Your task to perform on an android device: turn off translation in the chrome app Image 0: 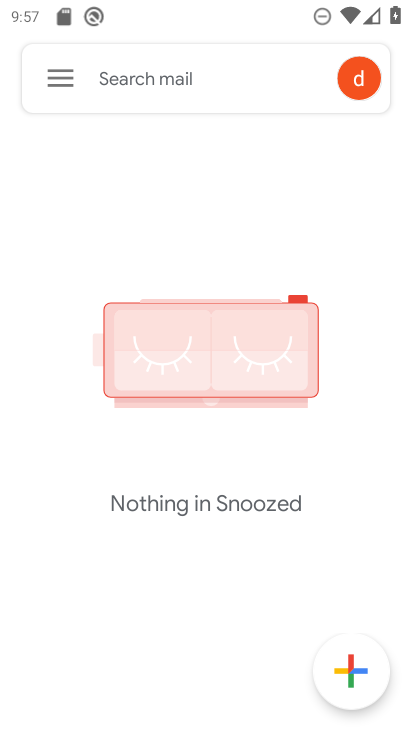
Step 0: press home button
Your task to perform on an android device: turn off translation in the chrome app Image 1: 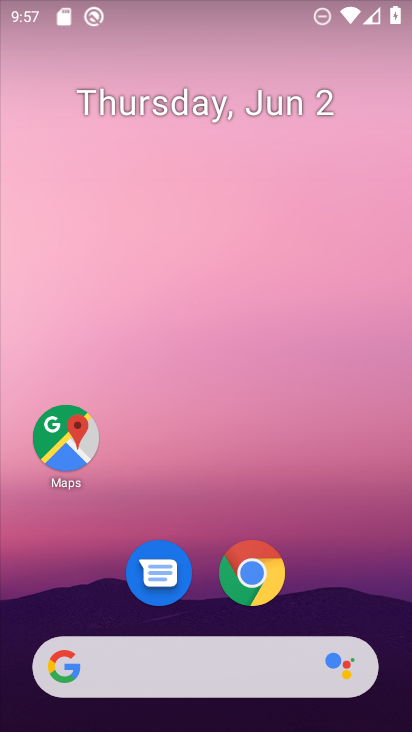
Step 1: click (254, 576)
Your task to perform on an android device: turn off translation in the chrome app Image 2: 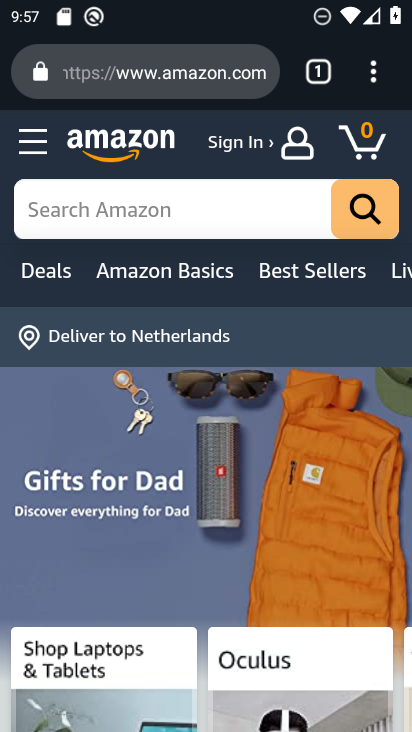
Step 2: drag from (369, 77) to (286, 218)
Your task to perform on an android device: turn off translation in the chrome app Image 3: 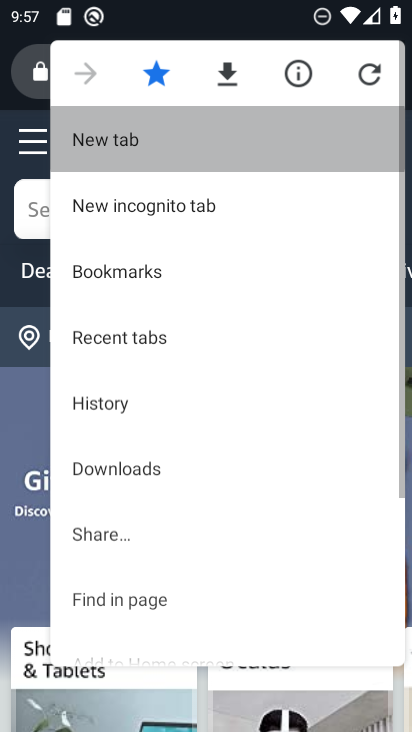
Step 3: drag from (218, 341) to (190, 387)
Your task to perform on an android device: turn off translation in the chrome app Image 4: 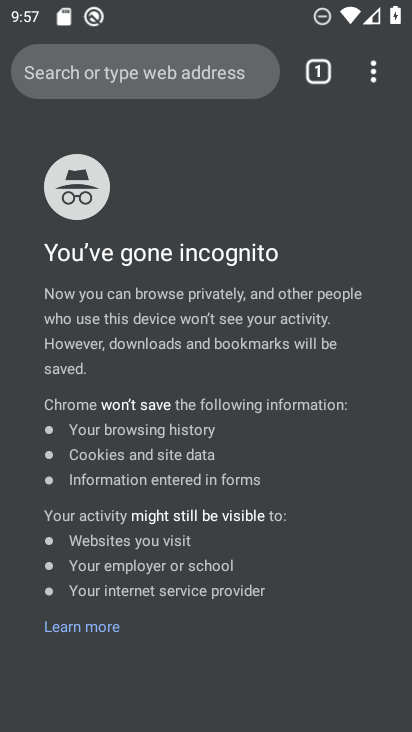
Step 4: drag from (158, 559) to (233, 330)
Your task to perform on an android device: turn off translation in the chrome app Image 5: 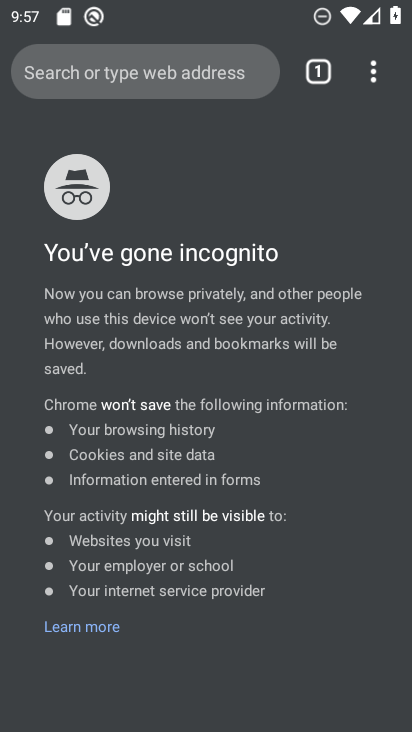
Step 5: click (373, 72)
Your task to perform on an android device: turn off translation in the chrome app Image 6: 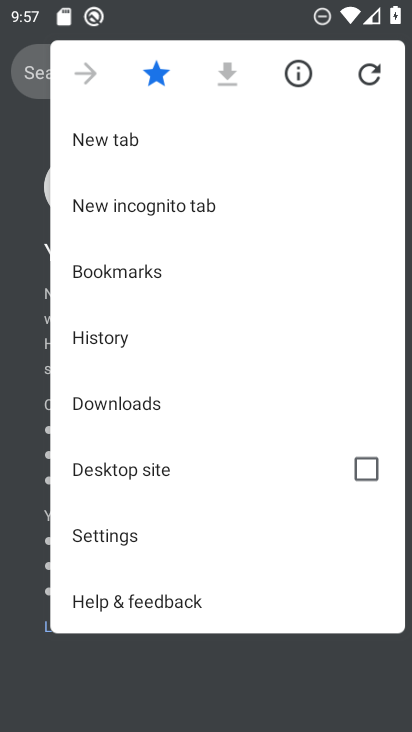
Step 6: click (130, 129)
Your task to perform on an android device: turn off translation in the chrome app Image 7: 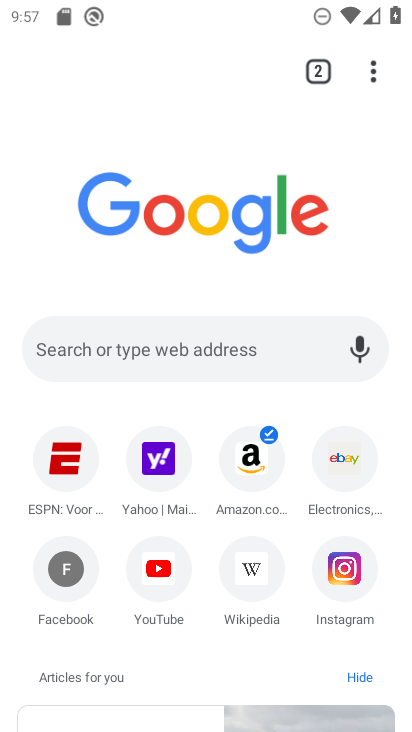
Step 7: drag from (369, 61) to (147, 608)
Your task to perform on an android device: turn off translation in the chrome app Image 8: 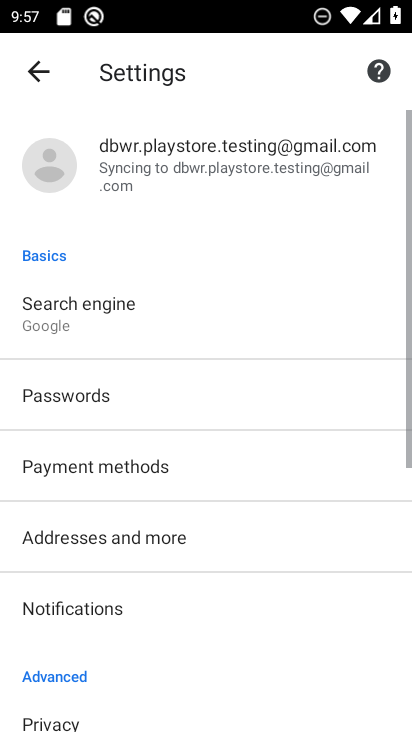
Step 8: drag from (148, 606) to (224, 96)
Your task to perform on an android device: turn off translation in the chrome app Image 9: 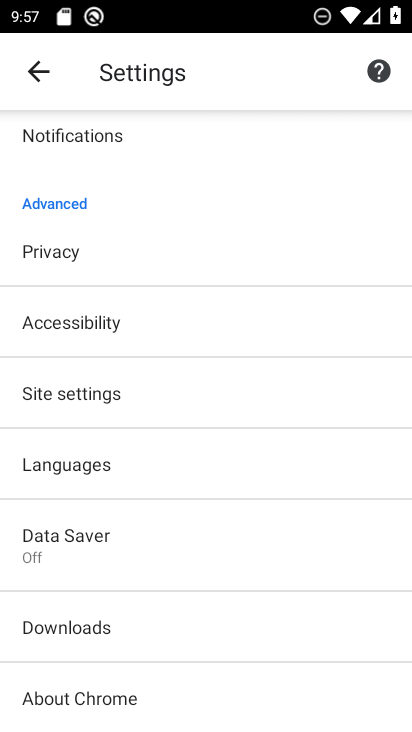
Step 9: click (99, 392)
Your task to perform on an android device: turn off translation in the chrome app Image 10: 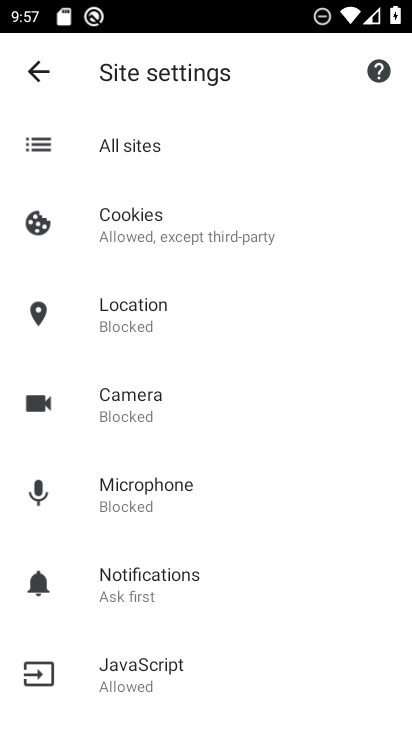
Step 10: click (37, 69)
Your task to perform on an android device: turn off translation in the chrome app Image 11: 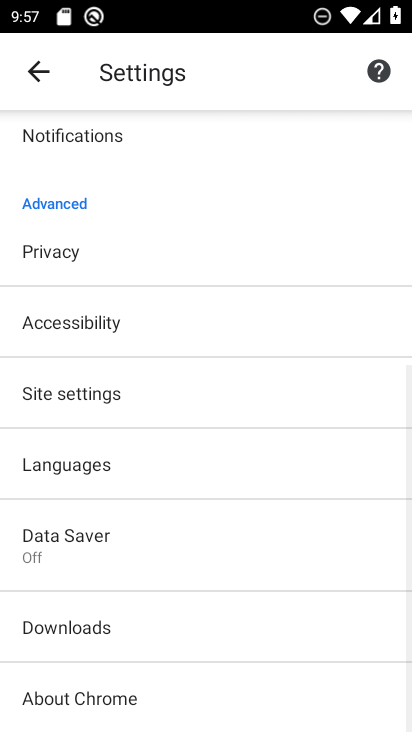
Step 11: click (69, 477)
Your task to perform on an android device: turn off translation in the chrome app Image 12: 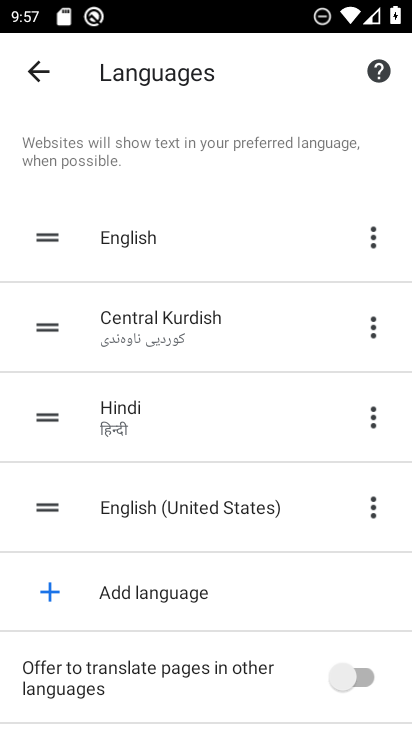
Step 12: task complete